Your task to perform on an android device: turn on the 12-hour format for clock Image 0: 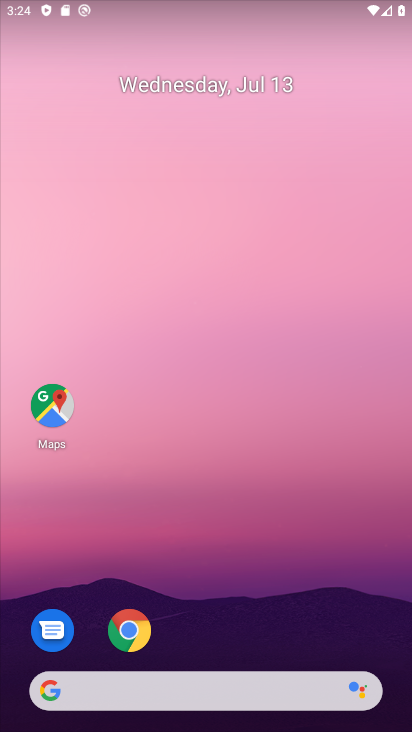
Step 0: drag from (302, 589) to (226, 102)
Your task to perform on an android device: turn on the 12-hour format for clock Image 1: 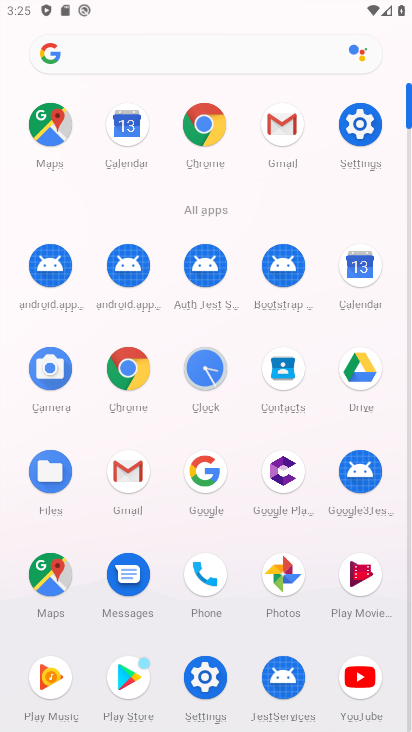
Step 1: click (202, 368)
Your task to perform on an android device: turn on the 12-hour format for clock Image 2: 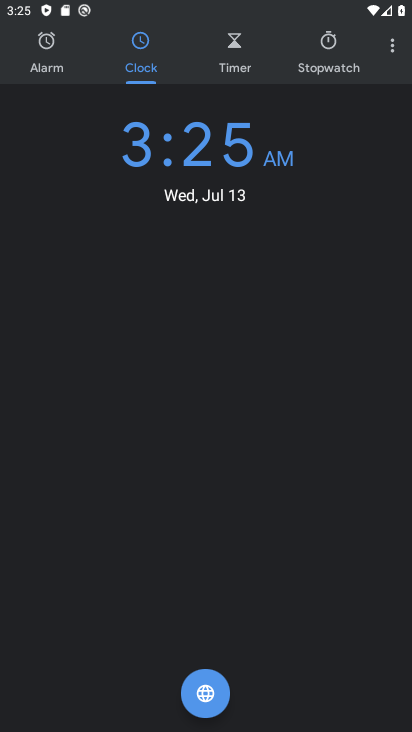
Step 2: click (391, 47)
Your task to perform on an android device: turn on the 12-hour format for clock Image 3: 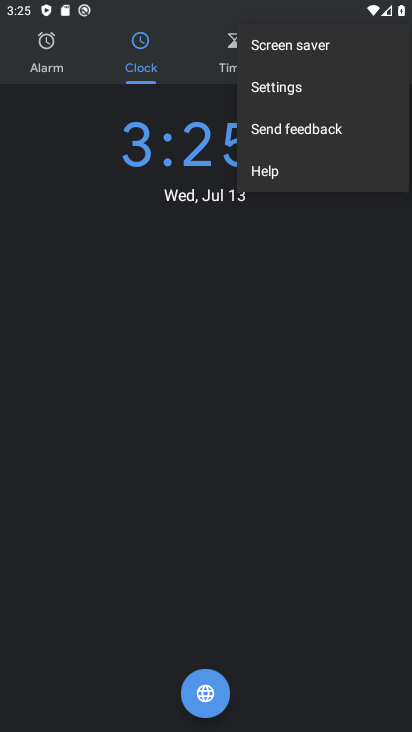
Step 3: click (295, 88)
Your task to perform on an android device: turn on the 12-hour format for clock Image 4: 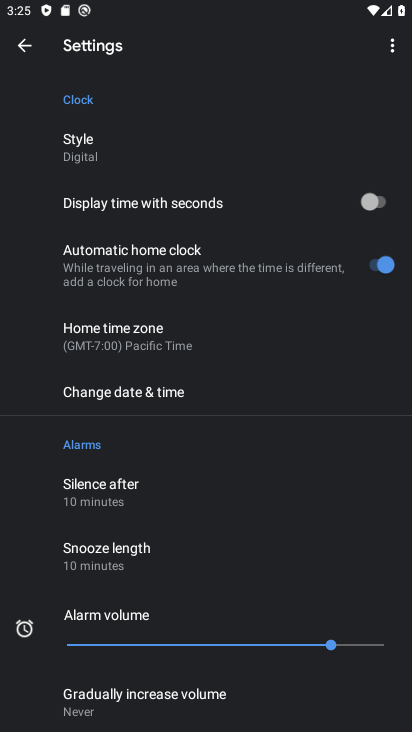
Step 4: click (144, 388)
Your task to perform on an android device: turn on the 12-hour format for clock Image 5: 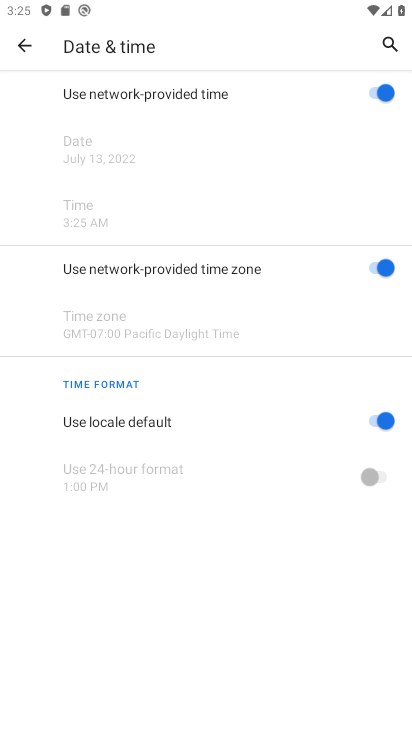
Step 5: task complete